Your task to perform on an android device: Go to wifi settings Image 0: 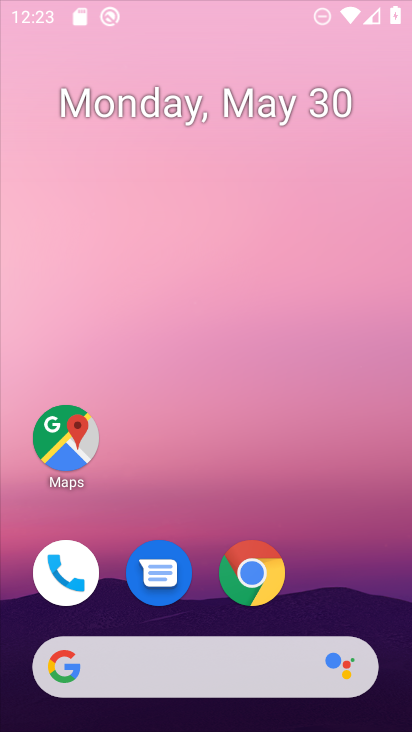
Step 0: press home button
Your task to perform on an android device: Go to wifi settings Image 1: 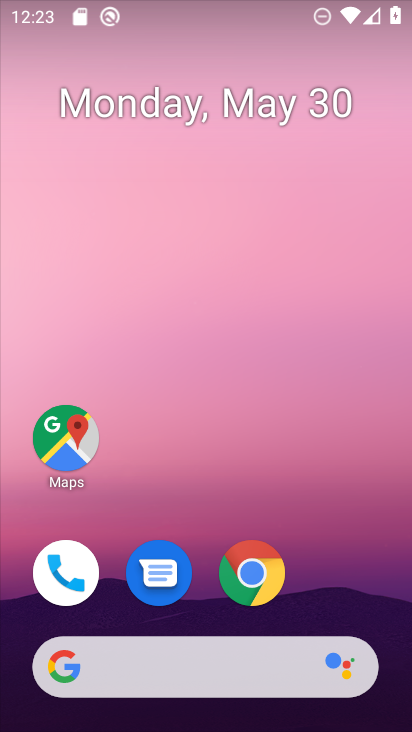
Step 1: drag from (316, 614) to (226, 118)
Your task to perform on an android device: Go to wifi settings Image 2: 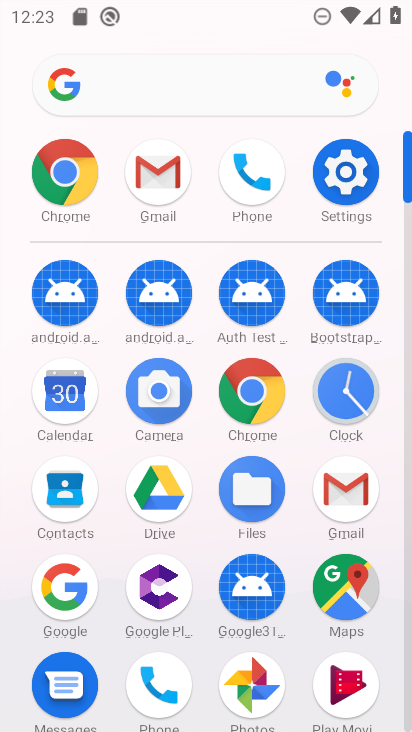
Step 2: click (351, 183)
Your task to perform on an android device: Go to wifi settings Image 3: 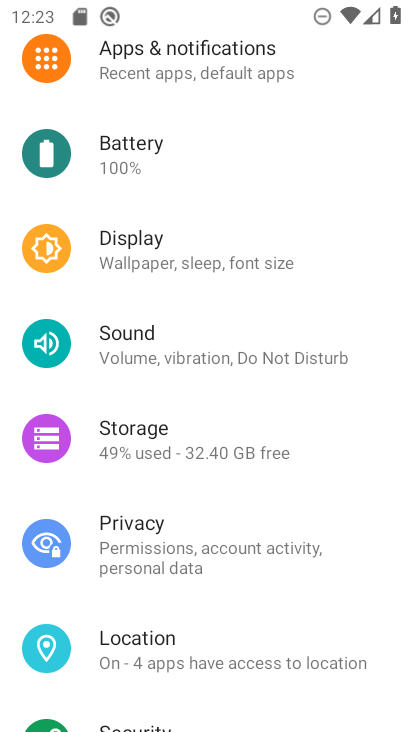
Step 3: drag from (312, 169) to (355, 658)
Your task to perform on an android device: Go to wifi settings Image 4: 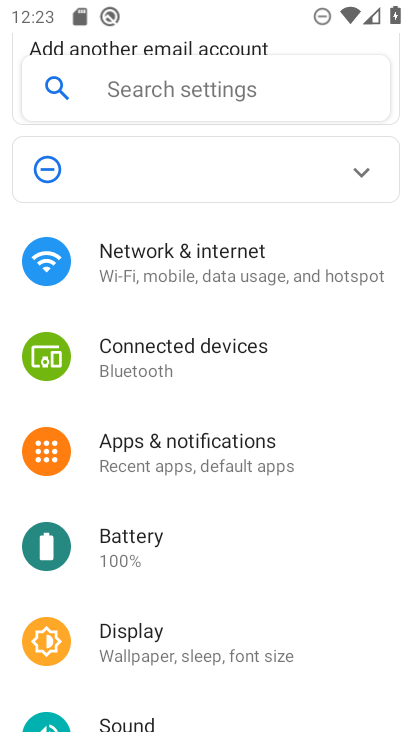
Step 4: click (198, 269)
Your task to perform on an android device: Go to wifi settings Image 5: 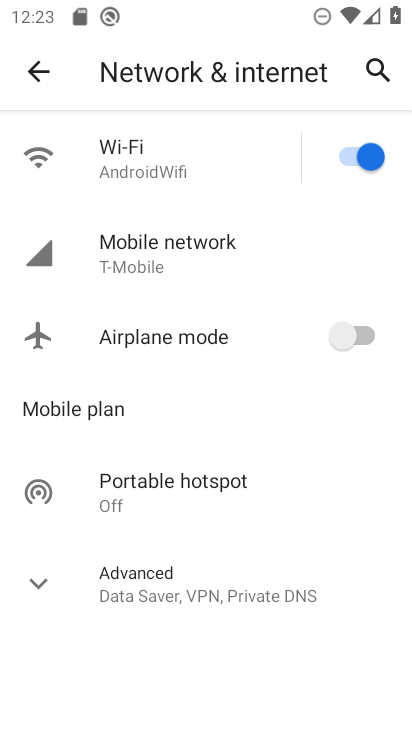
Step 5: click (120, 150)
Your task to perform on an android device: Go to wifi settings Image 6: 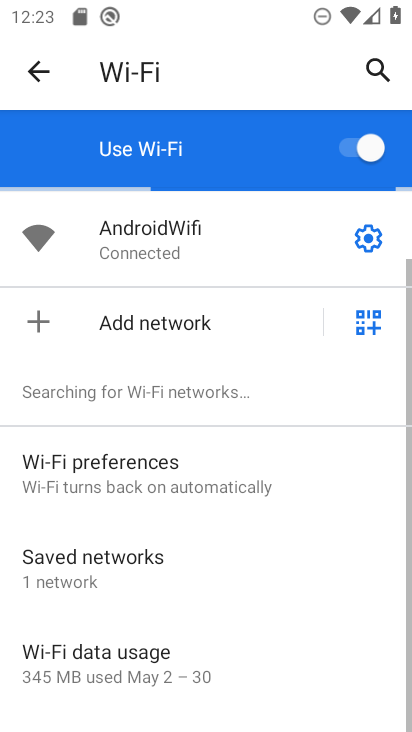
Step 6: task complete